Your task to perform on an android device: set default search engine in the chrome app Image 0: 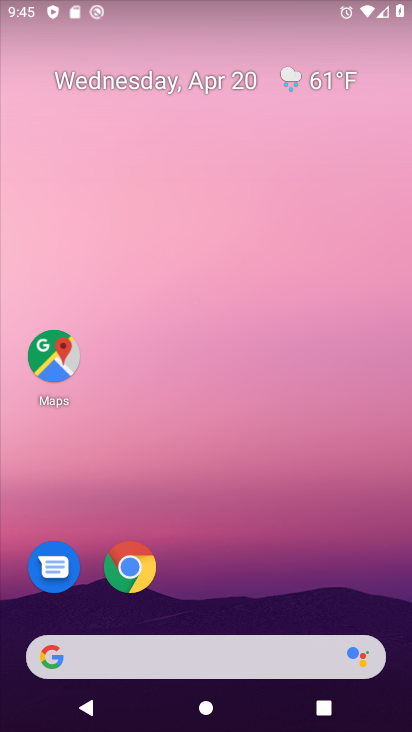
Step 0: click (128, 559)
Your task to perform on an android device: set default search engine in the chrome app Image 1: 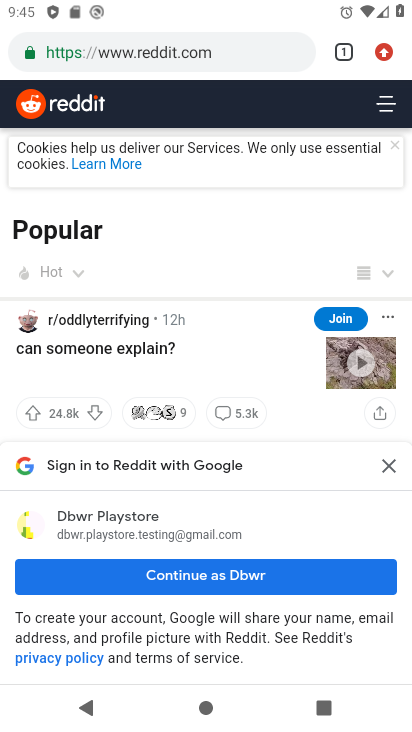
Step 1: drag from (378, 49) to (230, 600)
Your task to perform on an android device: set default search engine in the chrome app Image 2: 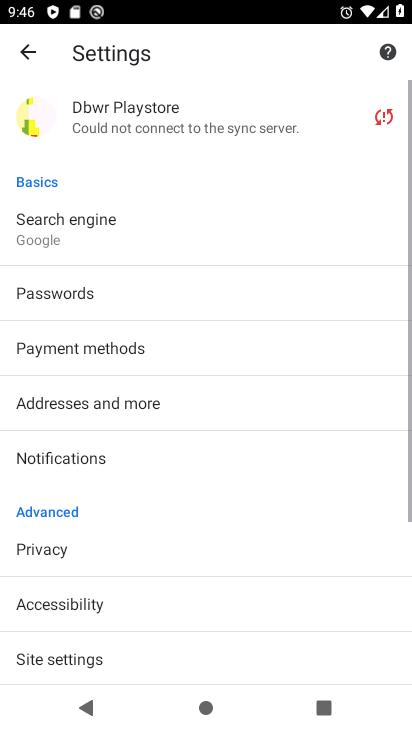
Step 2: click (100, 219)
Your task to perform on an android device: set default search engine in the chrome app Image 3: 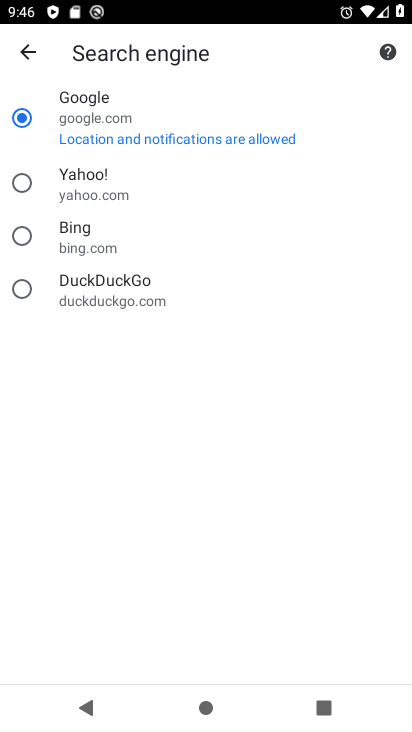
Step 3: click (83, 229)
Your task to perform on an android device: set default search engine in the chrome app Image 4: 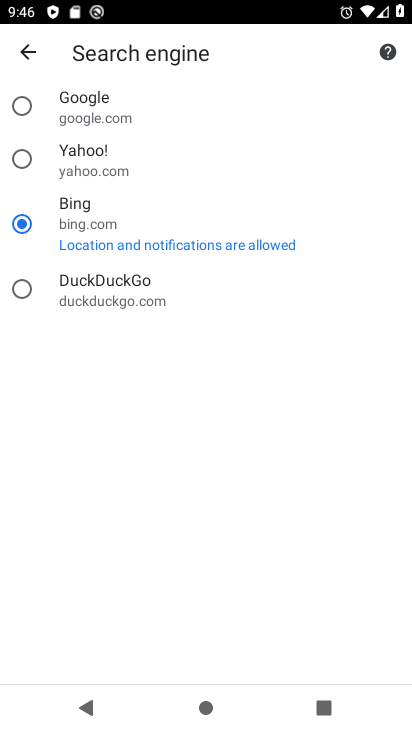
Step 4: task complete